Your task to perform on an android device: stop showing notifications on the lock screen Image 0: 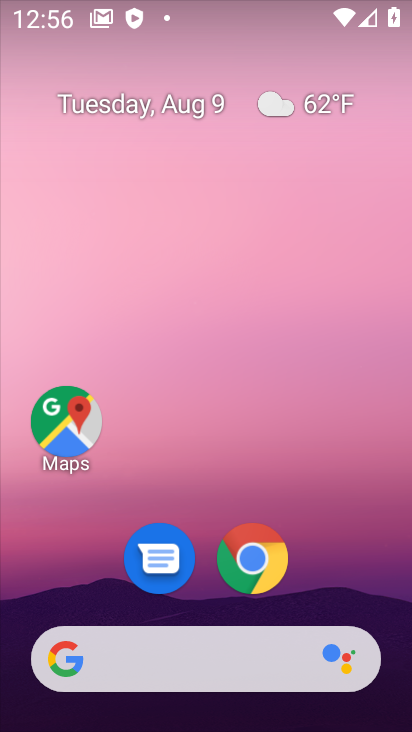
Step 0: drag from (379, 564) to (267, 136)
Your task to perform on an android device: stop showing notifications on the lock screen Image 1: 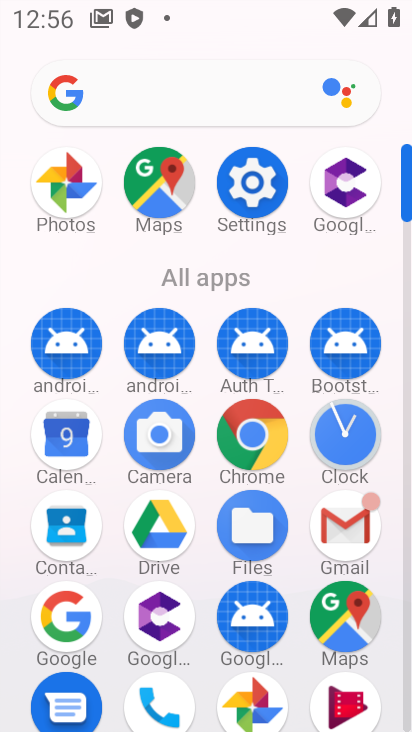
Step 1: click (242, 204)
Your task to perform on an android device: stop showing notifications on the lock screen Image 2: 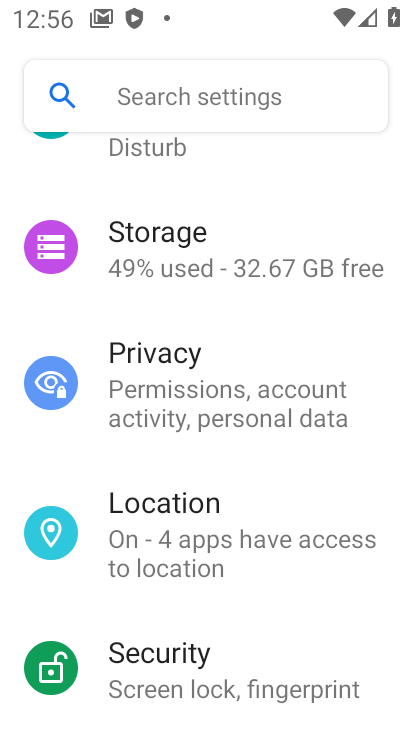
Step 2: drag from (202, 191) to (252, 705)
Your task to perform on an android device: stop showing notifications on the lock screen Image 3: 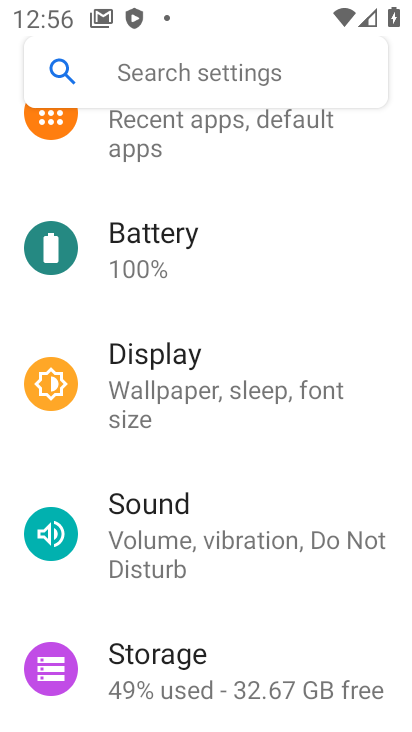
Step 3: drag from (207, 175) to (245, 631)
Your task to perform on an android device: stop showing notifications on the lock screen Image 4: 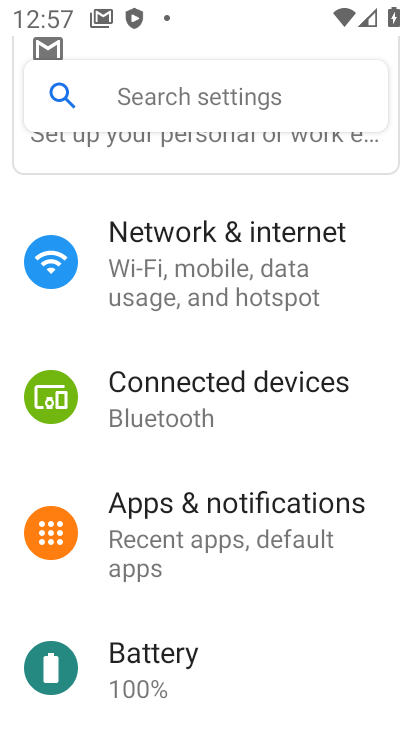
Step 4: click (297, 504)
Your task to perform on an android device: stop showing notifications on the lock screen Image 5: 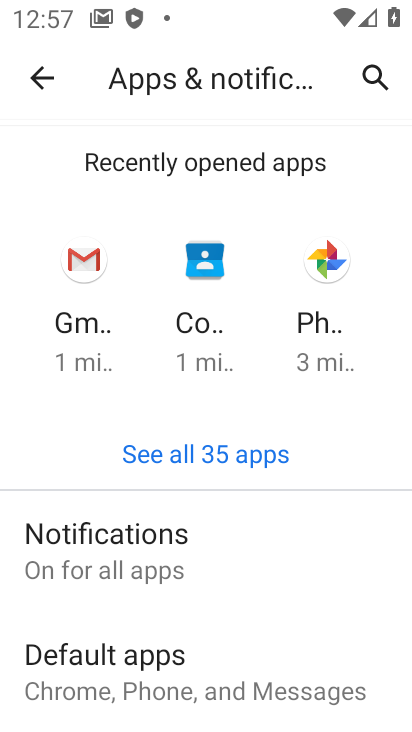
Step 5: click (233, 547)
Your task to perform on an android device: stop showing notifications on the lock screen Image 6: 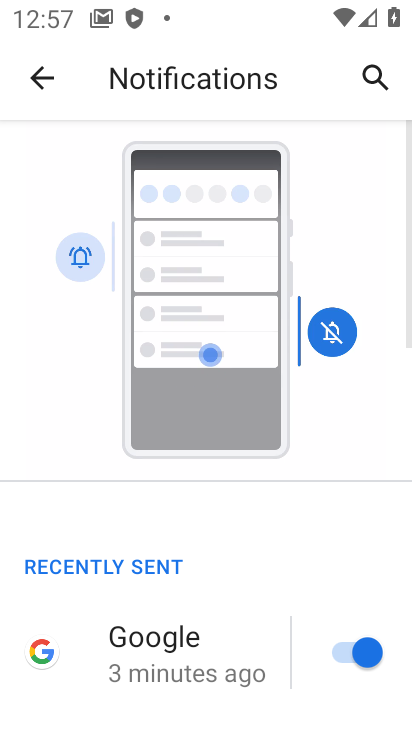
Step 6: drag from (288, 578) to (179, 35)
Your task to perform on an android device: stop showing notifications on the lock screen Image 7: 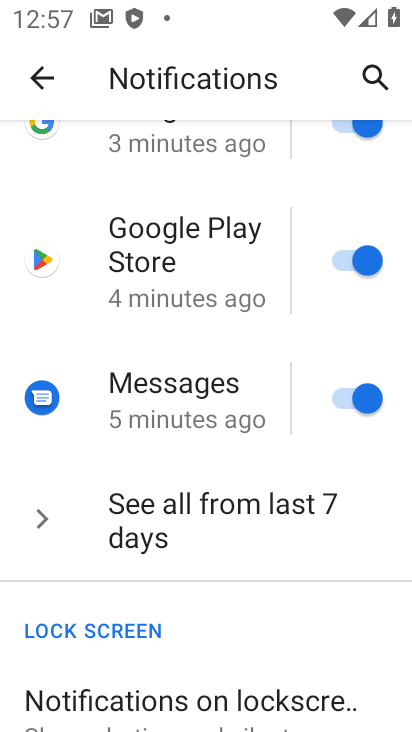
Step 7: click (203, 703)
Your task to perform on an android device: stop showing notifications on the lock screen Image 8: 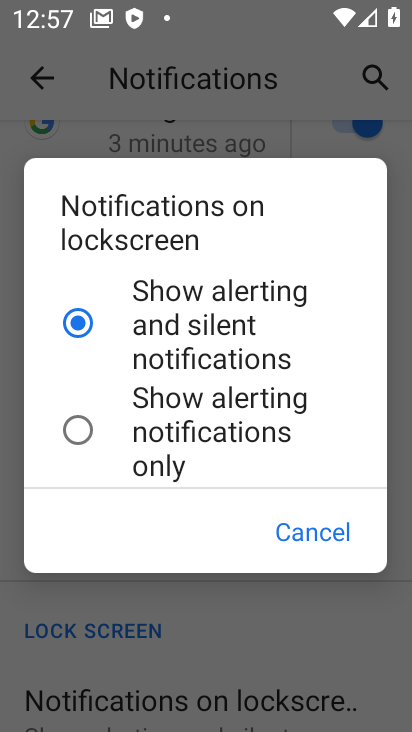
Step 8: drag from (187, 439) to (175, 249)
Your task to perform on an android device: stop showing notifications on the lock screen Image 9: 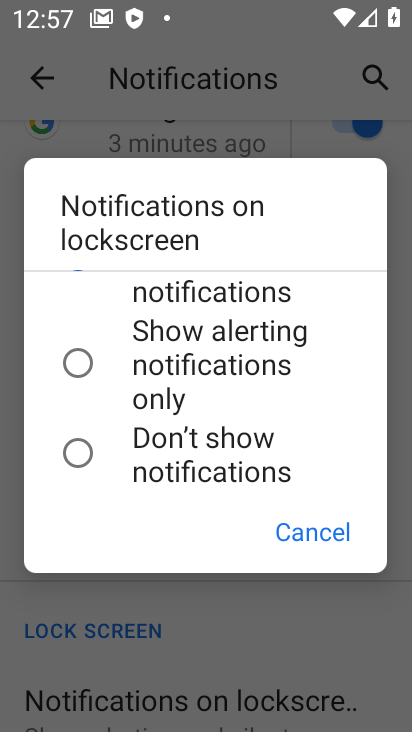
Step 9: click (86, 450)
Your task to perform on an android device: stop showing notifications on the lock screen Image 10: 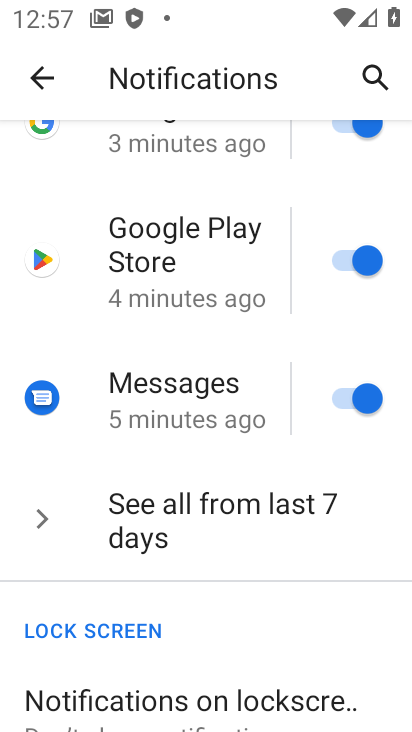
Step 10: task complete